Your task to perform on an android device: Go to Google Image 0: 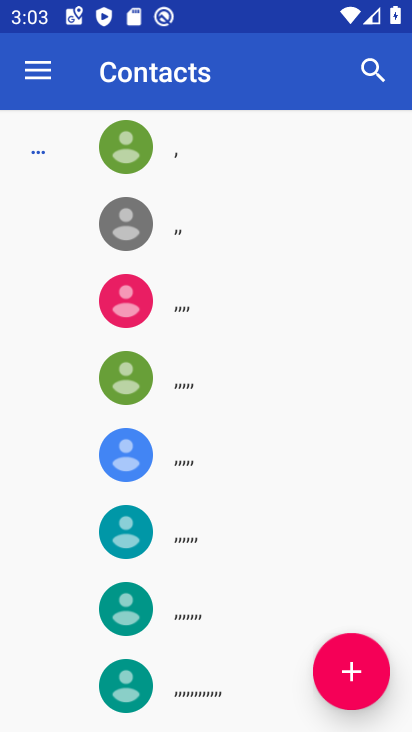
Step 0: press back button
Your task to perform on an android device: Go to Google Image 1: 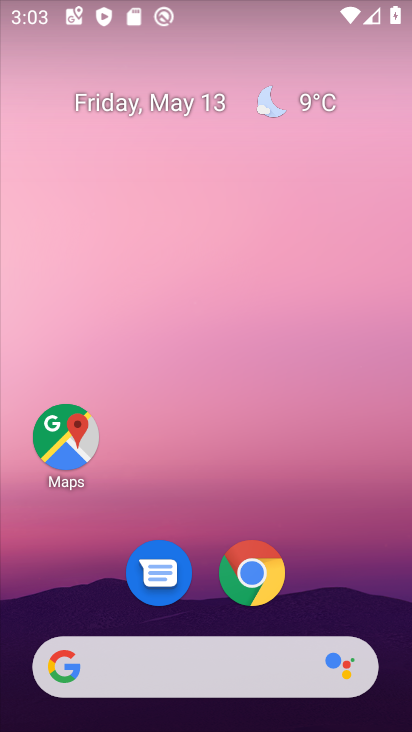
Step 1: drag from (223, 579) to (264, 85)
Your task to perform on an android device: Go to Google Image 2: 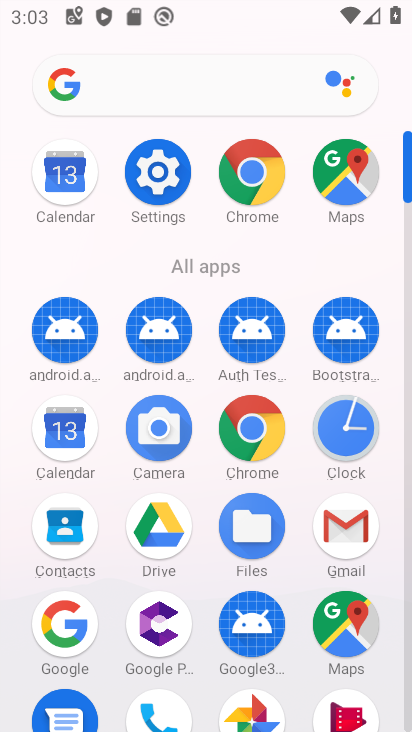
Step 2: click (62, 618)
Your task to perform on an android device: Go to Google Image 3: 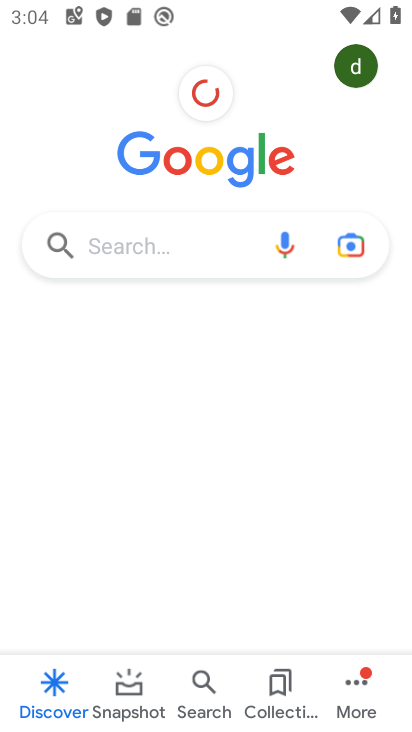
Step 3: task complete